Your task to perform on an android device: Open location settings Image 0: 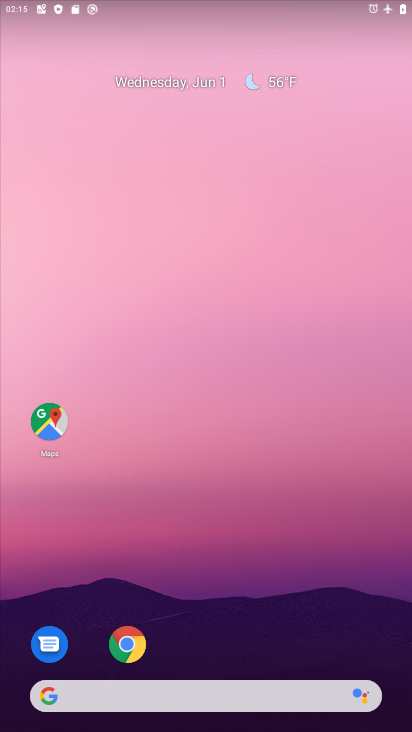
Step 0: drag from (214, 545) to (185, 200)
Your task to perform on an android device: Open location settings Image 1: 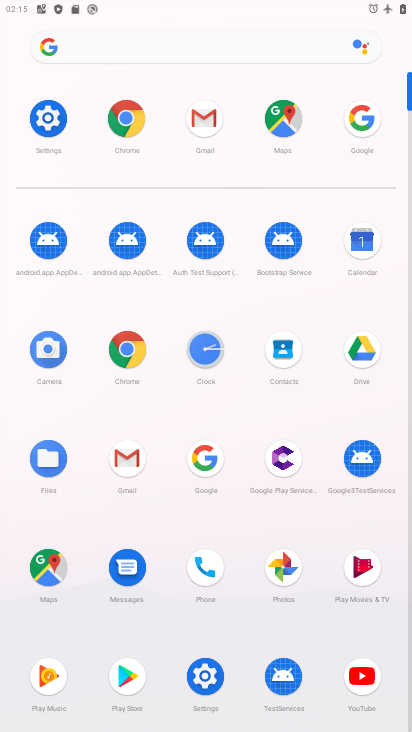
Step 1: click (53, 119)
Your task to perform on an android device: Open location settings Image 2: 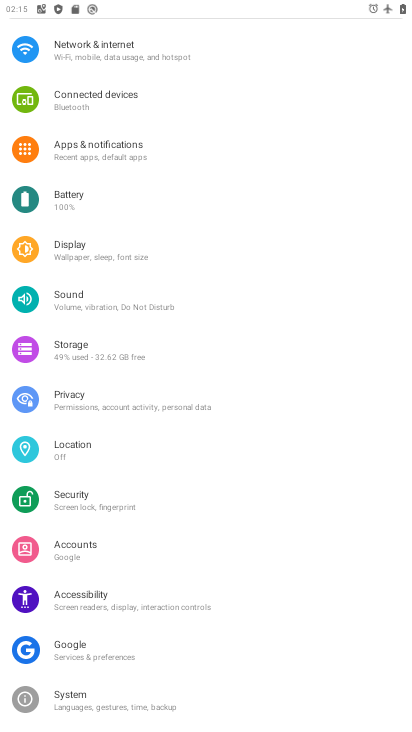
Step 2: click (67, 453)
Your task to perform on an android device: Open location settings Image 3: 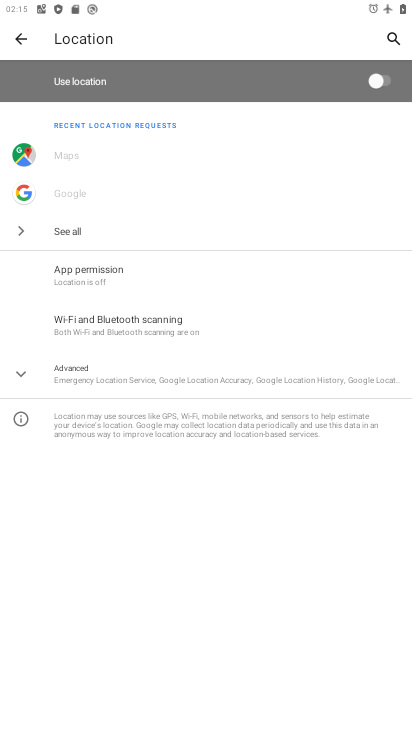
Step 3: click (98, 369)
Your task to perform on an android device: Open location settings Image 4: 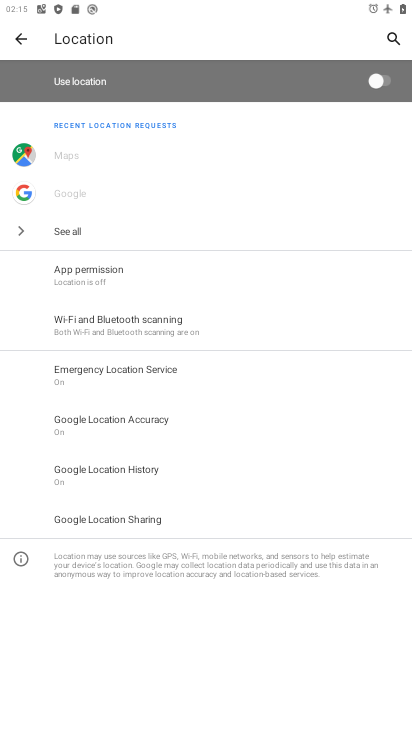
Step 4: task complete